Your task to perform on an android device: open app "eBay: The shopping marketplace" (install if not already installed) and go to login screen Image 0: 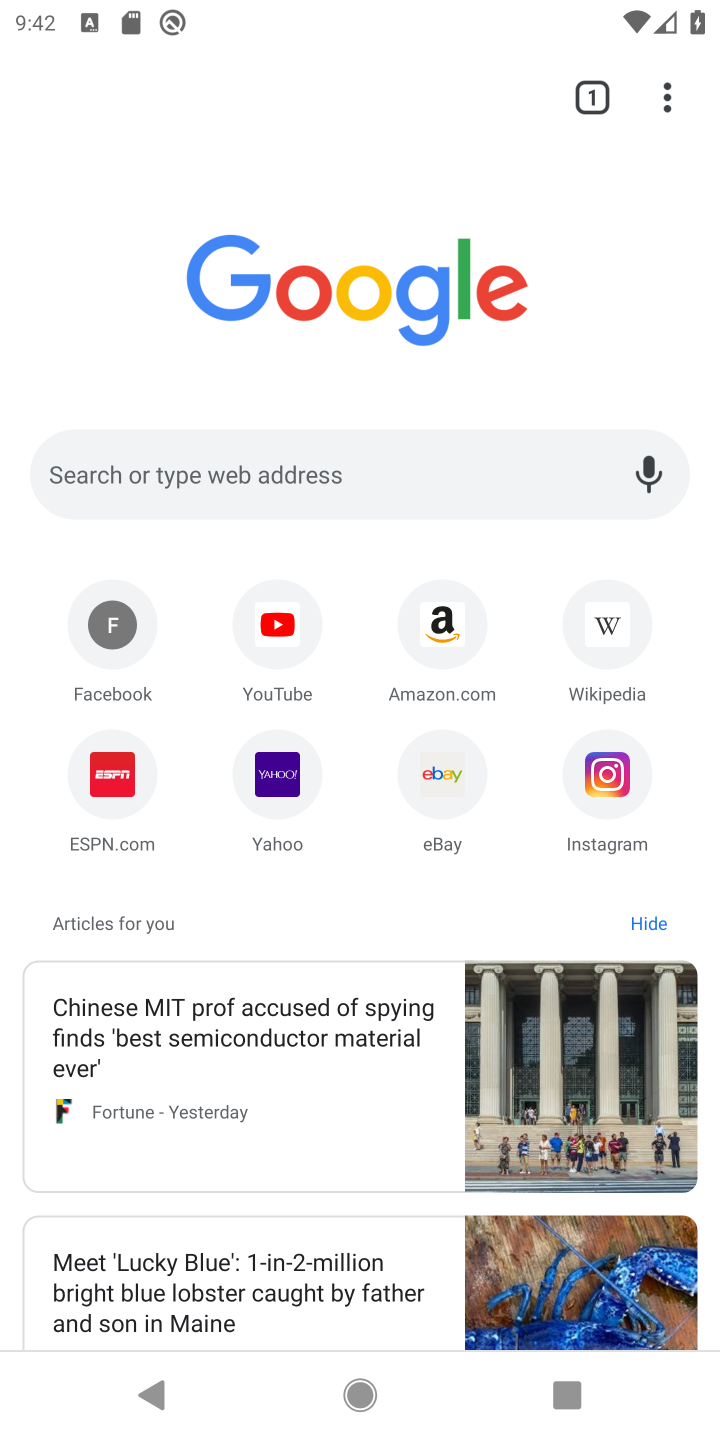
Step 0: press home button
Your task to perform on an android device: open app "eBay: The shopping marketplace" (install if not already installed) and go to login screen Image 1: 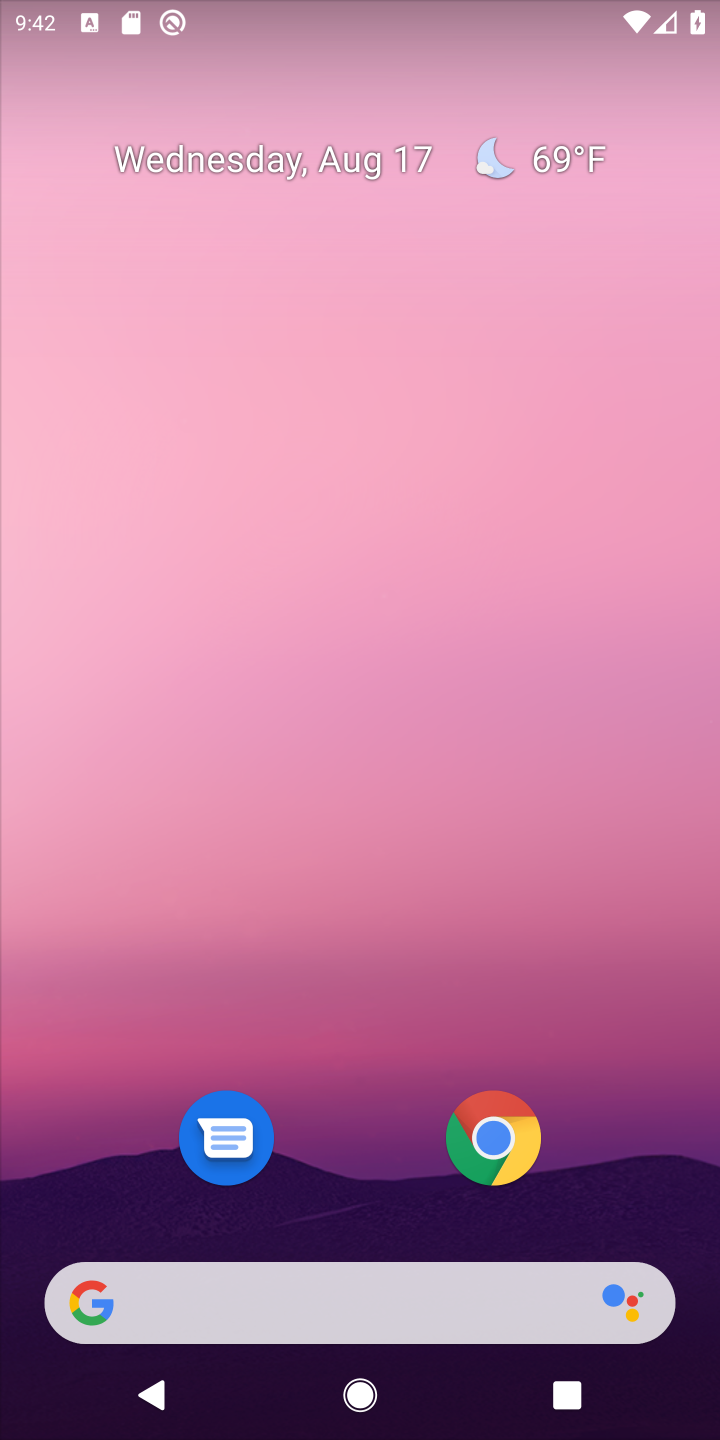
Step 1: drag from (196, 1199) to (228, 380)
Your task to perform on an android device: open app "eBay: The shopping marketplace" (install if not already installed) and go to login screen Image 2: 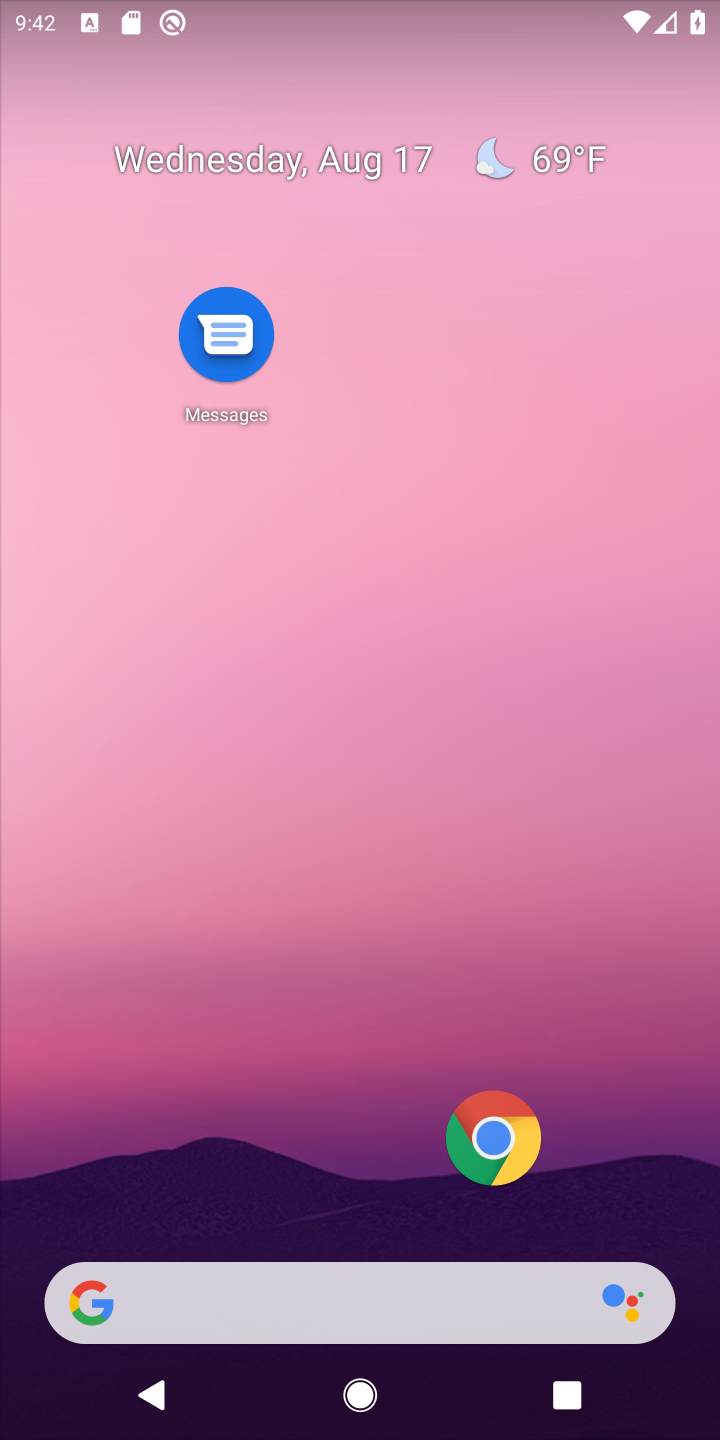
Step 2: drag from (341, 623) to (366, 485)
Your task to perform on an android device: open app "eBay: The shopping marketplace" (install if not already installed) and go to login screen Image 3: 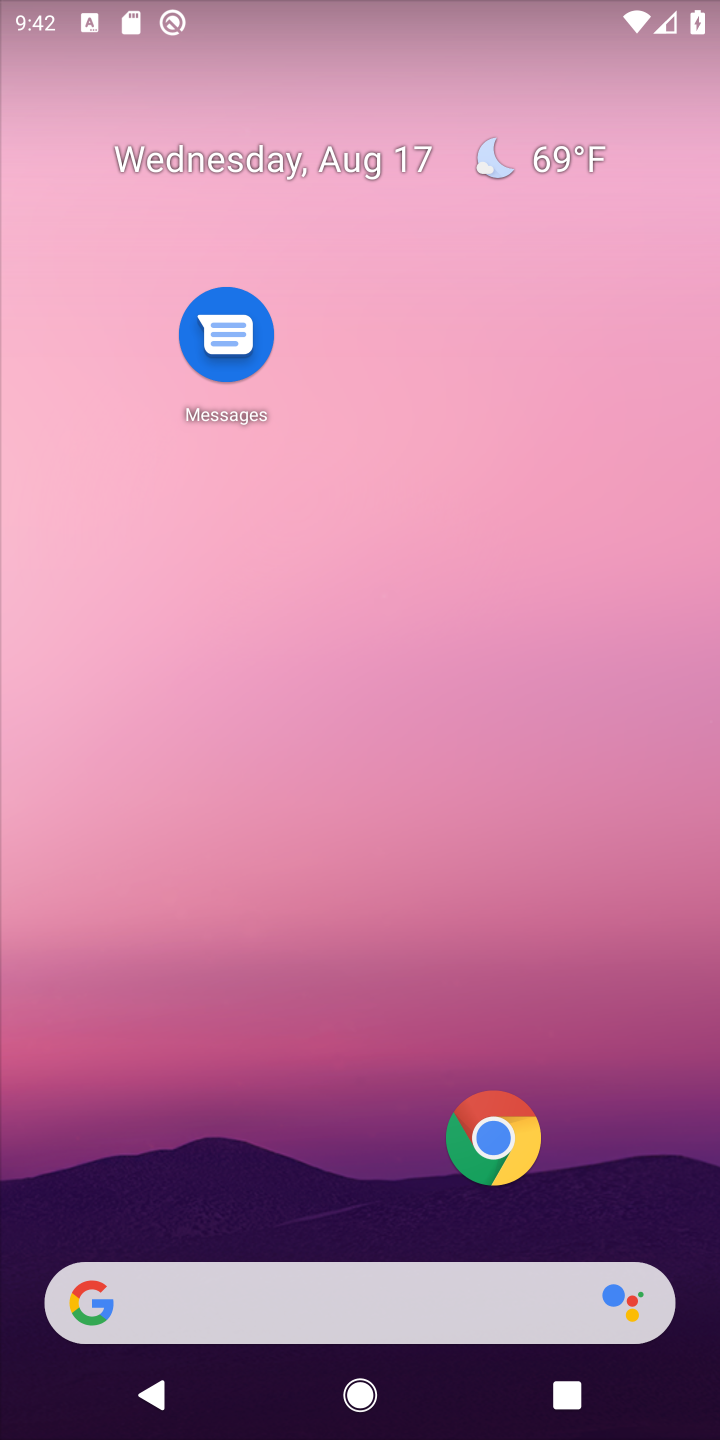
Step 3: drag from (310, 1093) to (305, 350)
Your task to perform on an android device: open app "eBay: The shopping marketplace" (install if not already installed) and go to login screen Image 4: 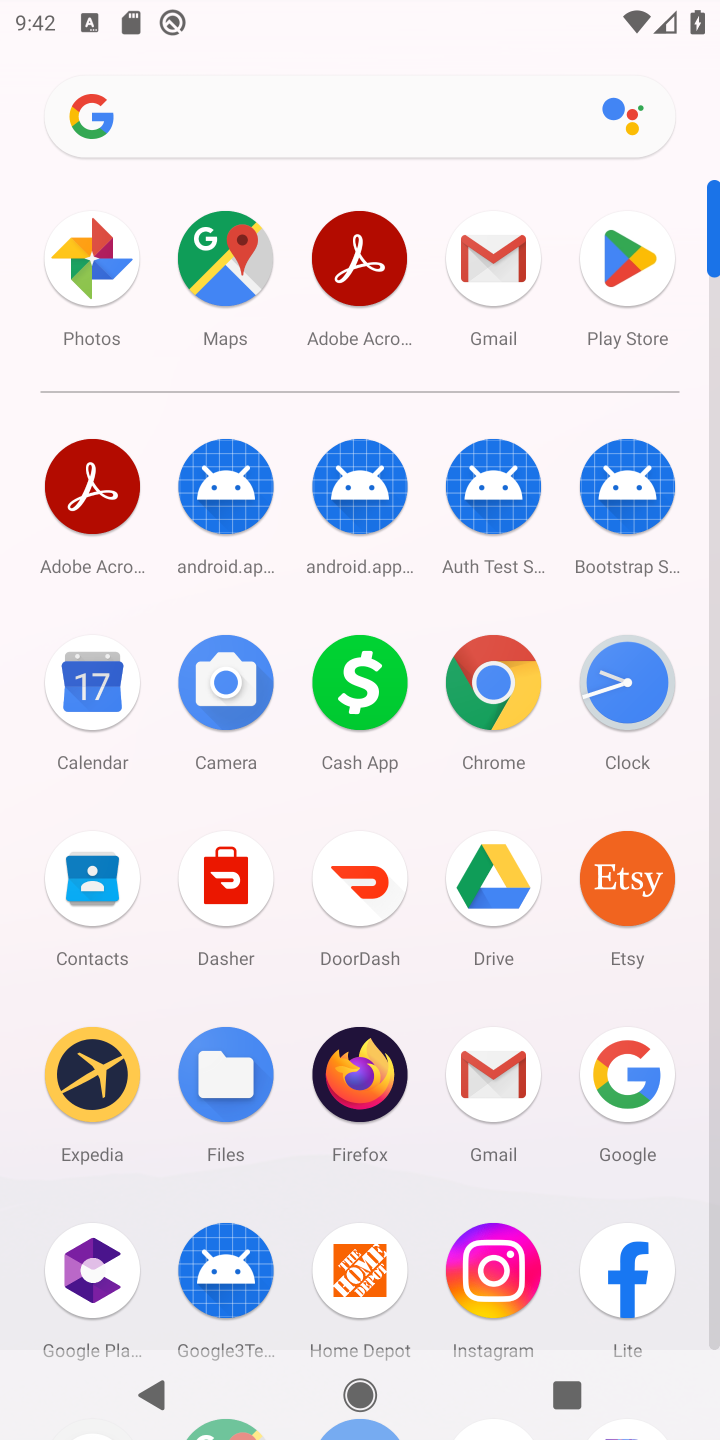
Step 4: click (643, 264)
Your task to perform on an android device: open app "eBay: The shopping marketplace" (install if not already installed) and go to login screen Image 5: 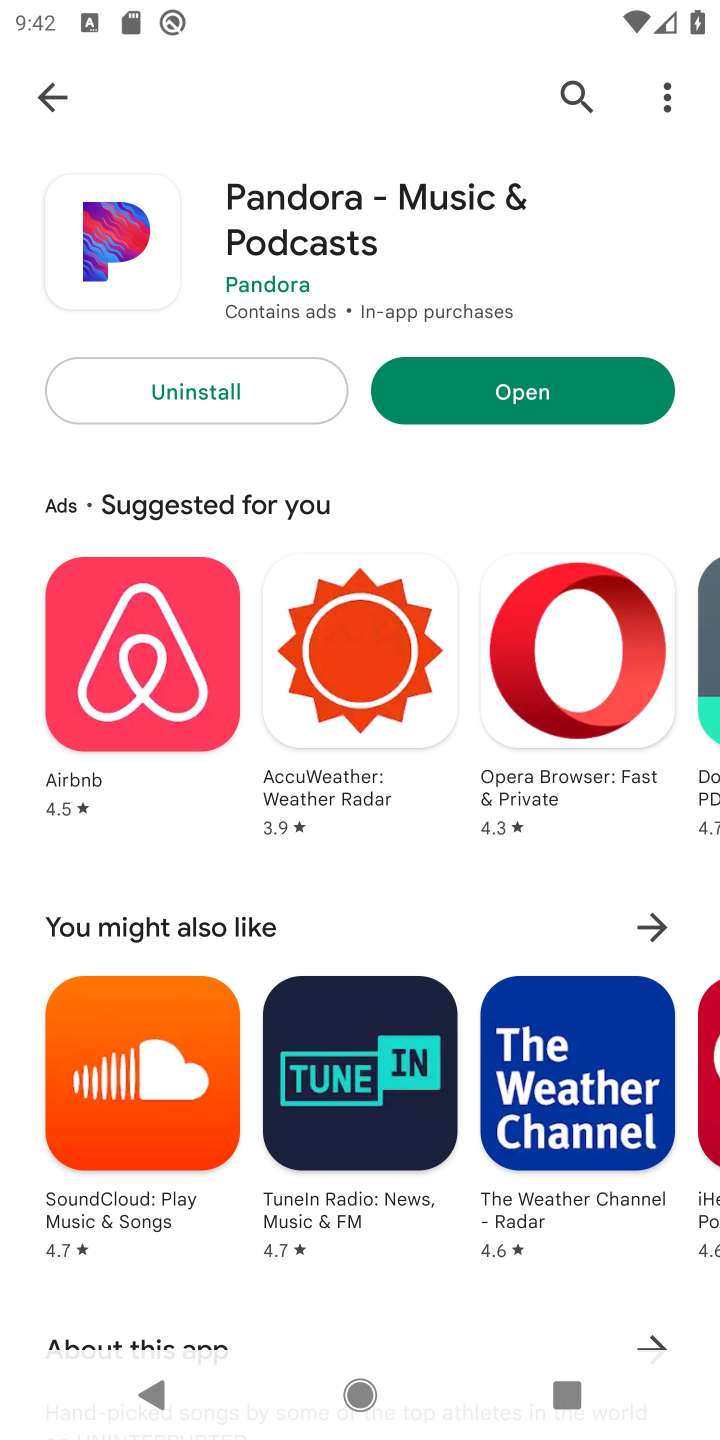
Step 5: click (20, 99)
Your task to perform on an android device: open app "eBay: The shopping marketplace" (install if not already installed) and go to login screen Image 6: 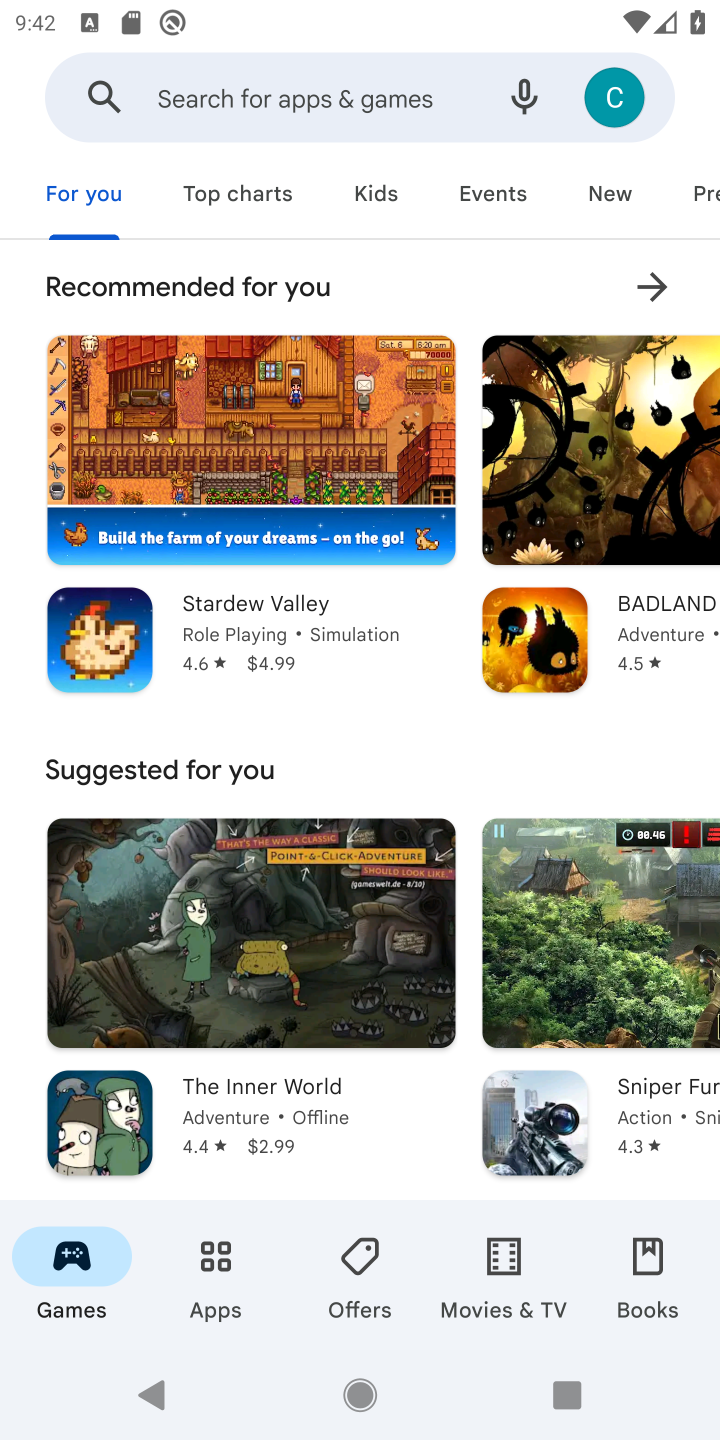
Step 6: click (402, 80)
Your task to perform on an android device: open app "eBay: The shopping marketplace" (install if not already installed) and go to login screen Image 7: 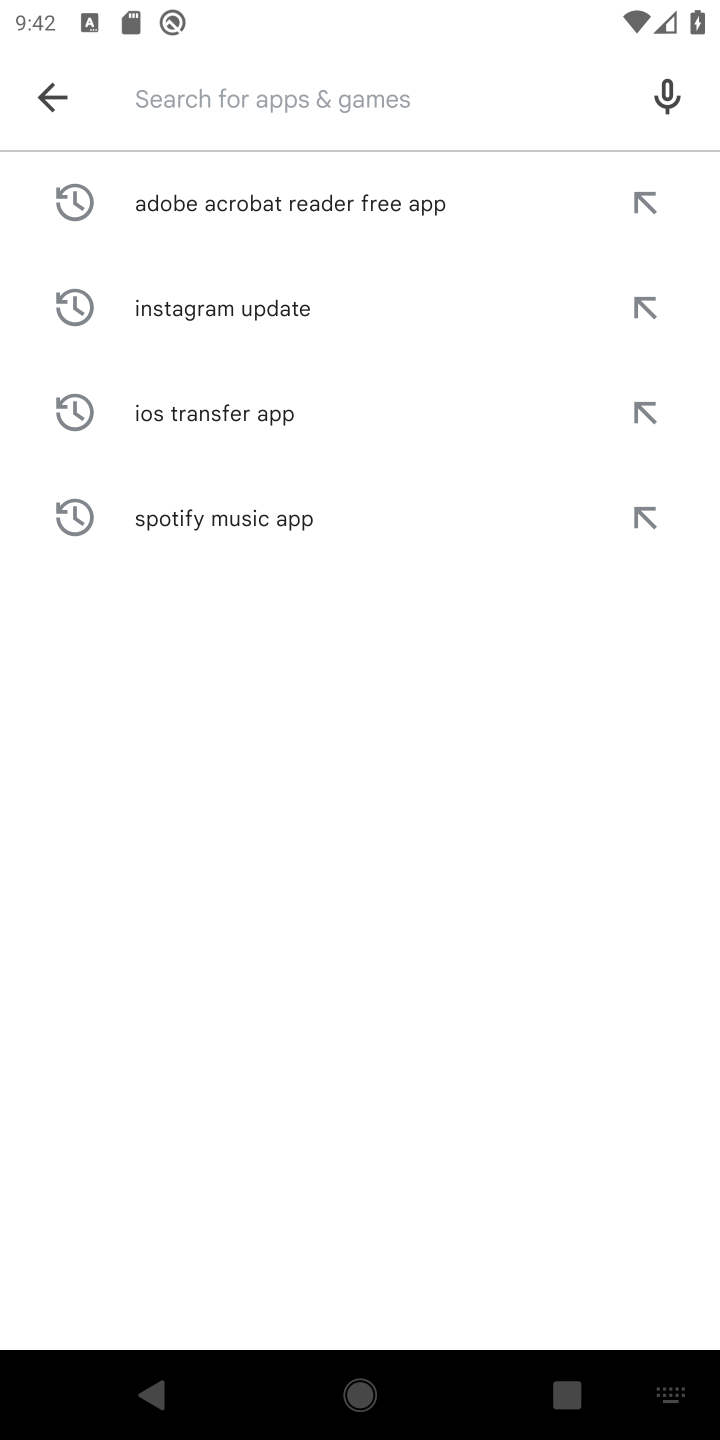
Step 7: type "ebay "
Your task to perform on an android device: open app "eBay: The shopping marketplace" (install if not already installed) and go to login screen Image 8: 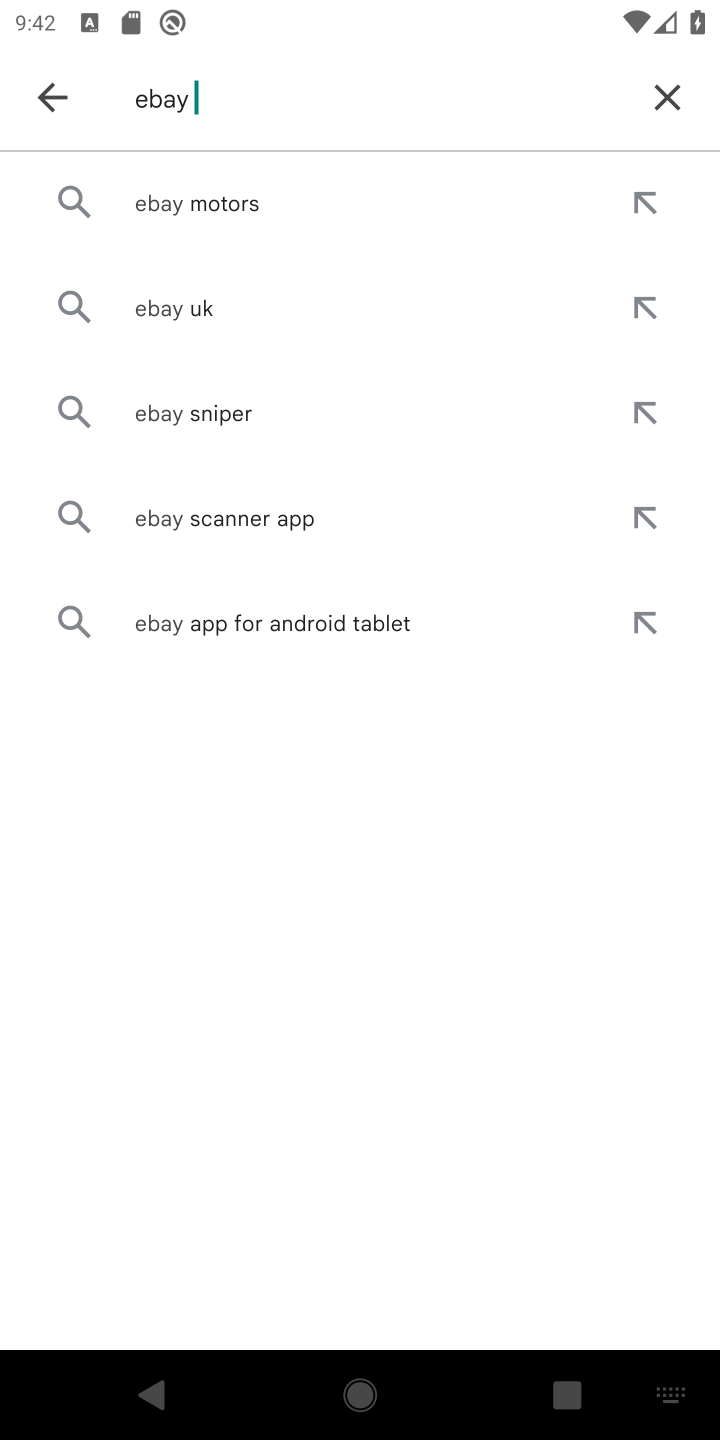
Step 8: click (213, 310)
Your task to perform on an android device: open app "eBay: The shopping marketplace" (install if not already installed) and go to login screen Image 9: 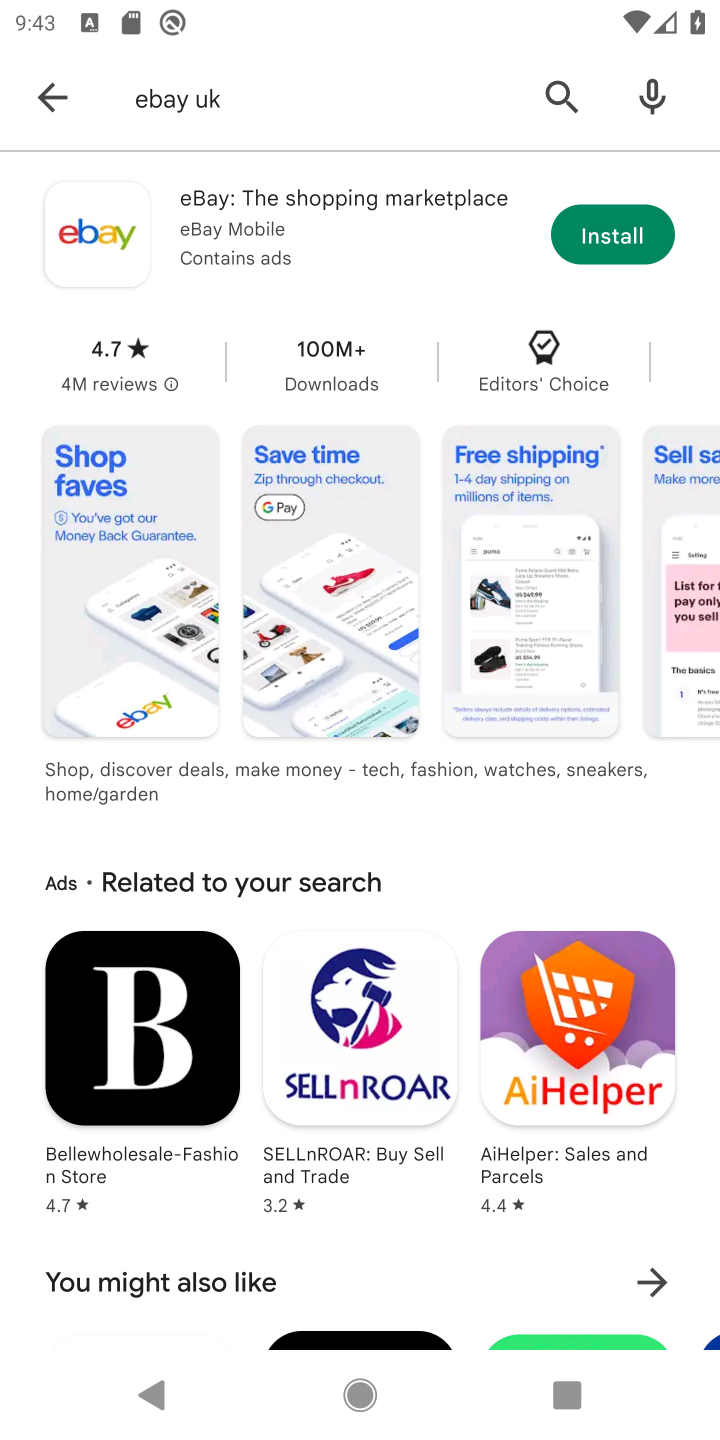
Step 9: click (596, 246)
Your task to perform on an android device: open app "eBay: The shopping marketplace" (install if not already installed) and go to login screen Image 10: 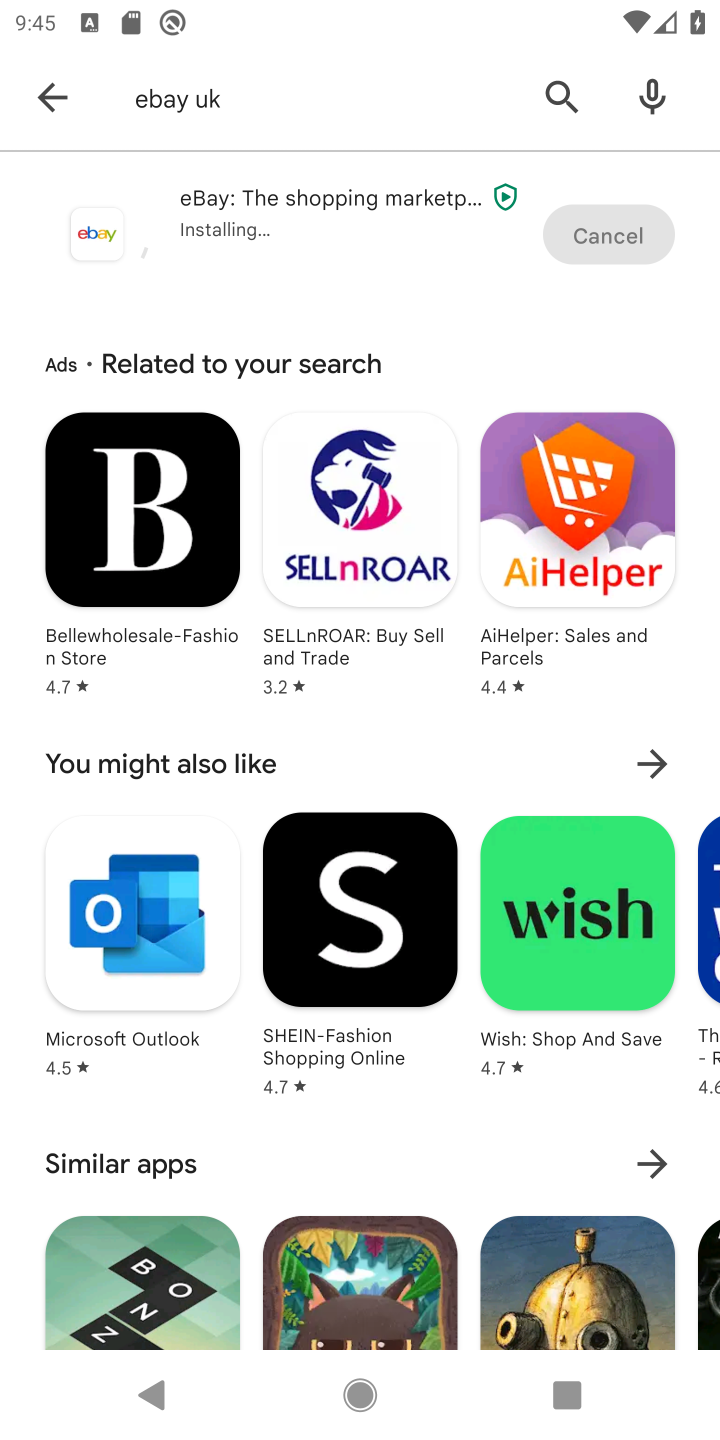
Step 10: task complete